Your task to perform on an android device: Open calendar and show me the third week of next month Image 0: 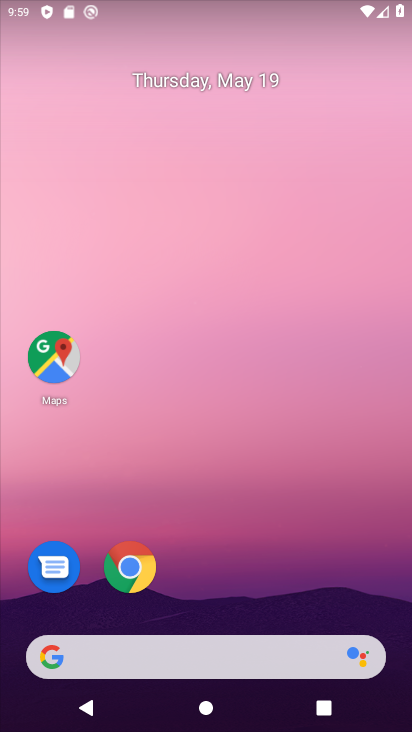
Step 0: drag from (335, 195) to (330, 90)
Your task to perform on an android device: Open calendar and show me the third week of next month Image 1: 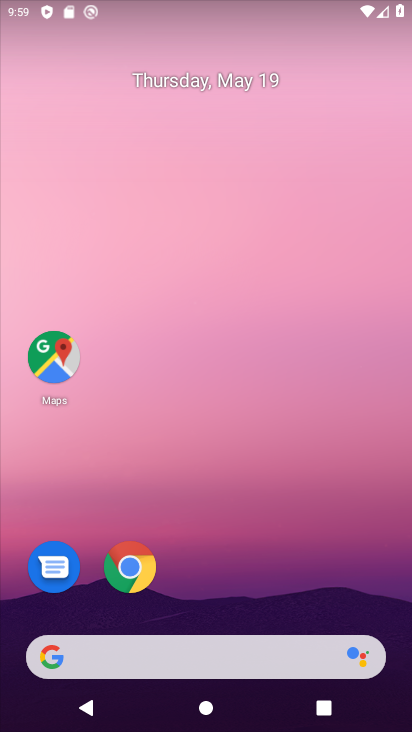
Step 1: drag from (383, 612) to (331, 260)
Your task to perform on an android device: Open calendar and show me the third week of next month Image 2: 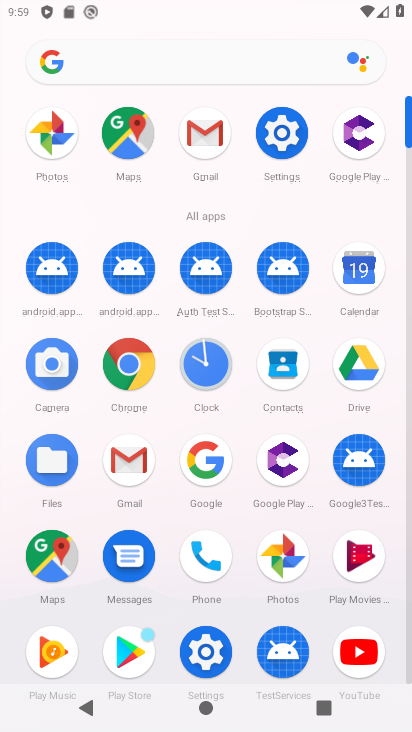
Step 2: click (362, 273)
Your task to perform on an android device: Open calendar and show me the third week of next month Image 3: 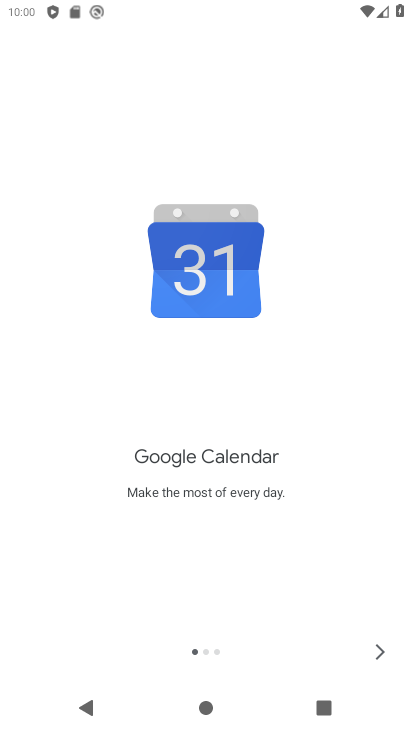
Step 3: click (375, 645)
Your task to perform on an android device: Open calendar and show me the third week of next month Image 4: 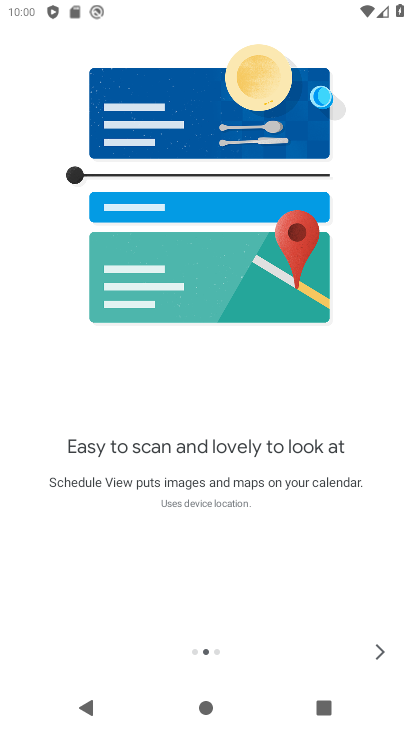
Step 4: click (375, 645)
Your task to perform on an android device: Open calendar and show me the third week of next month Image 5: 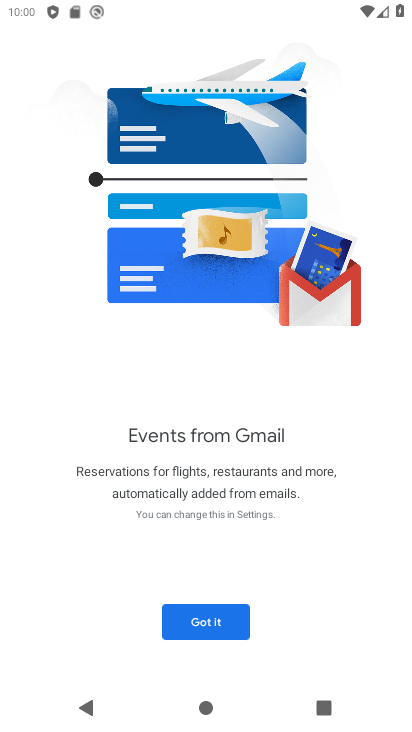
Step 5: click (201, 622)
Your task to perform on an android device: Open calendar and show me the third week of next month Image 6: 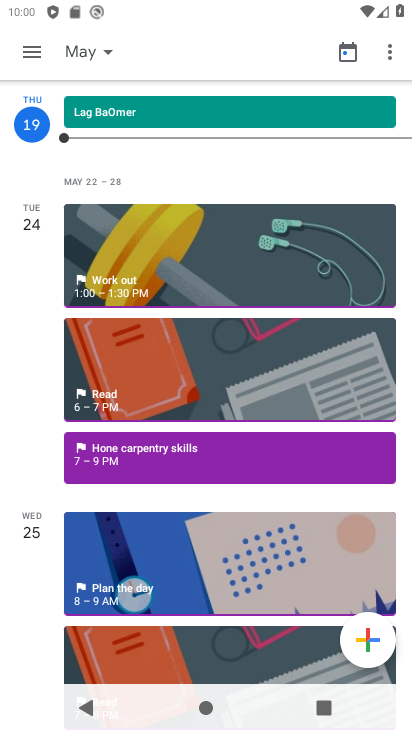
Step 6: click (29, 51)
Your task to perform on an android device: Open calendar and show me the third week of next month Image 7: 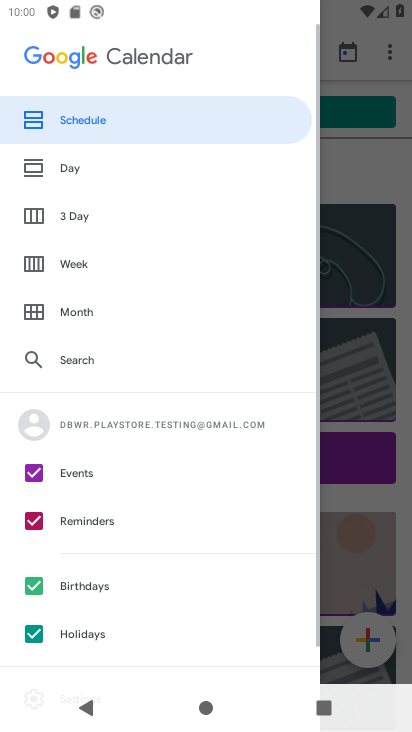
Step 7: click (71, 260)
Your task to perform on an android device: Open calendar and show me the third week of next month Image 8: 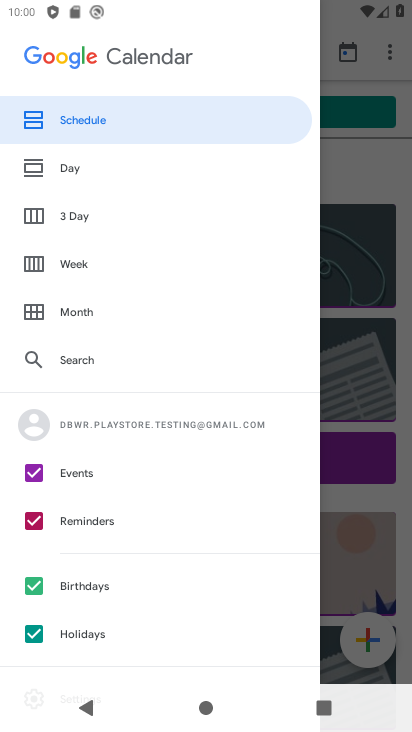
Step 8: click (87, 259)
Your task to perform on an android device: Open calendar and show me the third week of next month Image 9: 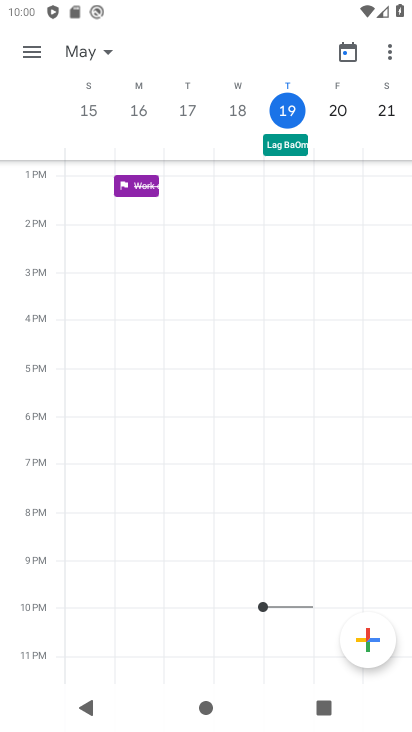
Step 9: click (111, 47)
Your task to perform on an android device: Open calendar and show me the third week of next month Image 10: 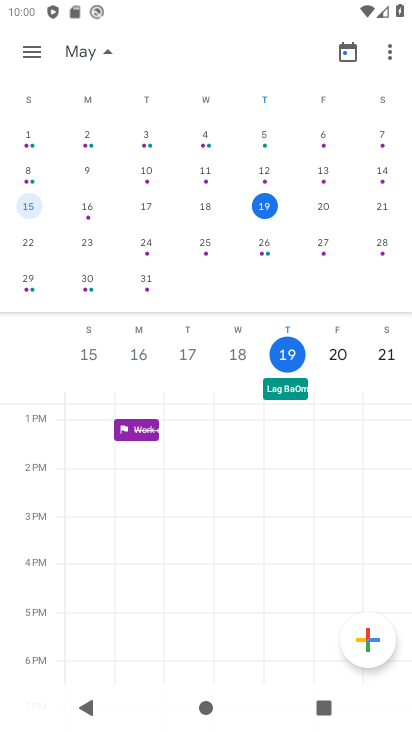
Step 10: drag from (386, 236) to (47, 175)
Your task to perform on an android device: Open calendar and show me the third week of next month Image 11: 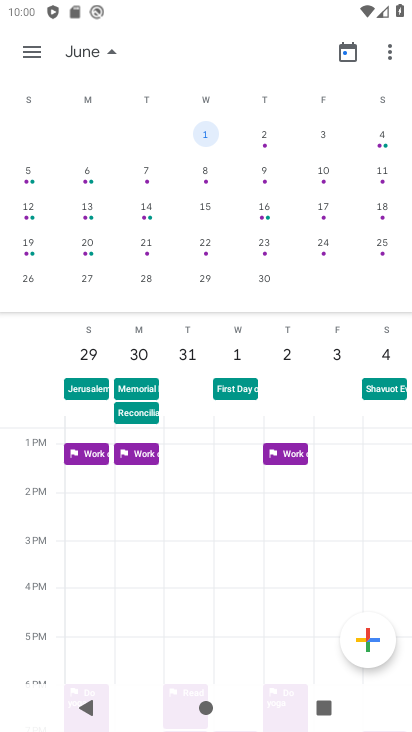
Step 11: click (28, 209)
Your task to perform on an android device: Open calendar and show me the third week of next month Image 12: 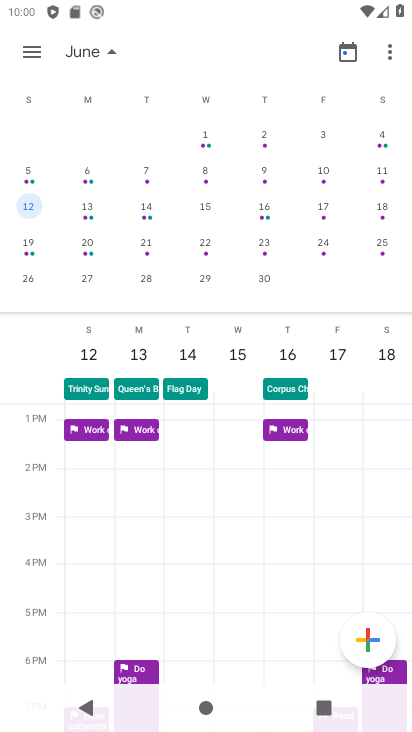
Step 12: task complete